Your task to perform on an android device: Show me the alarms in the clock app Image 0: 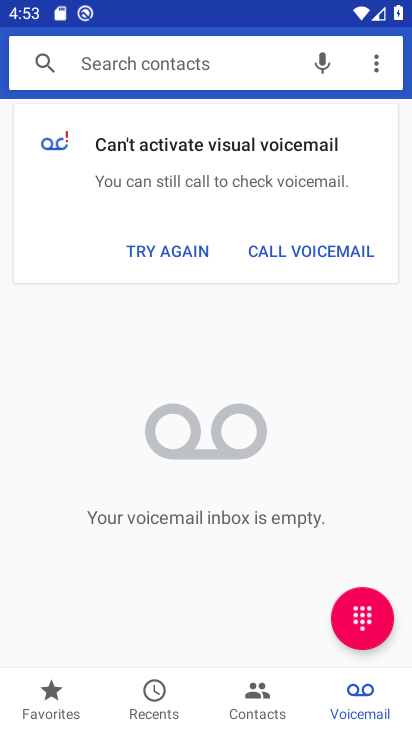
Step 0: press home button
Your task to perform on an android device: Show me the alarms in the clock app Image 1: 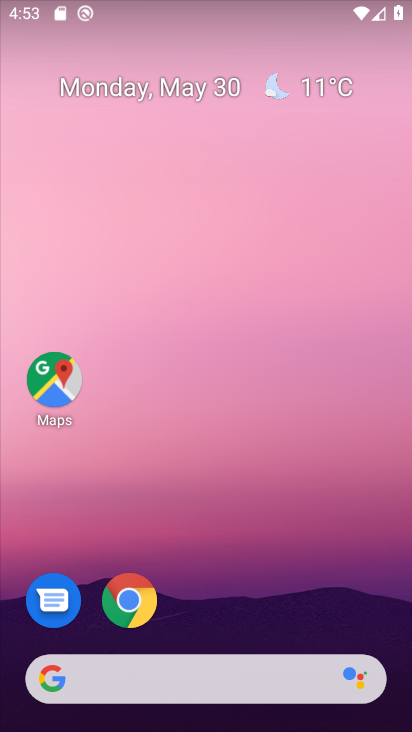
Step 1: drag from (282, 571) to (409, 259)
Your task to perform on an android device: Show me the alarms in the clock app Image 2: 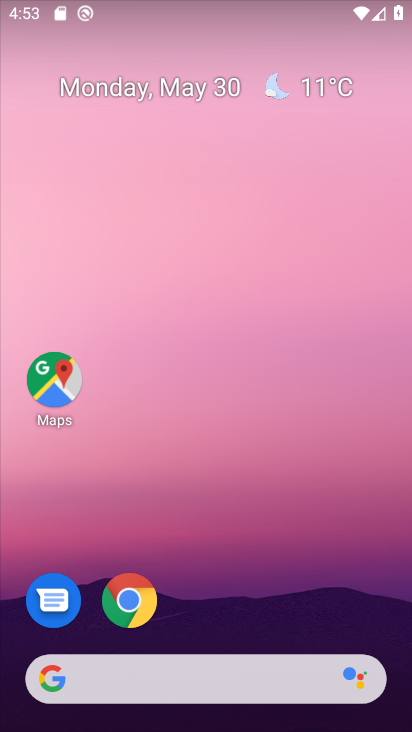
Step 2: drag from (219, 581) to (407, 1)
Your task to perform on an android device: Show me the alarms in the clock app Image 3: 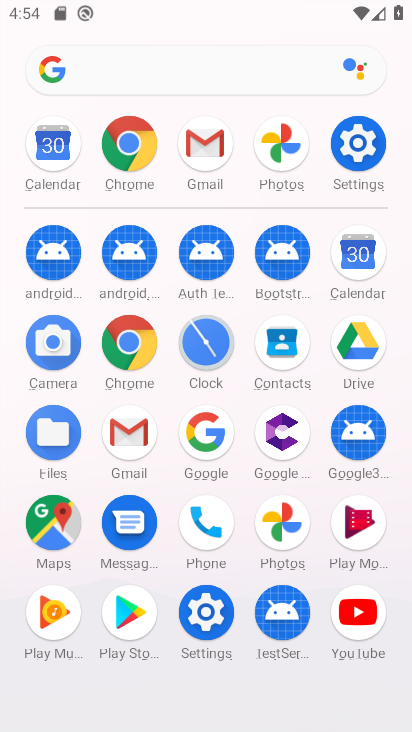
Step 3: click (212, 348)
Your task to perform on an android device: Show me the alarms in the clock app Image 4: 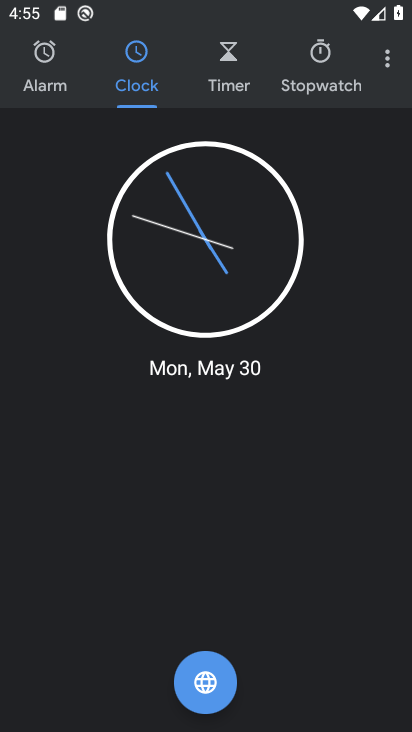
Step 4: click (392, 56)
Your task to perform on an android device: Show me the alarms in the clock app Image 5: 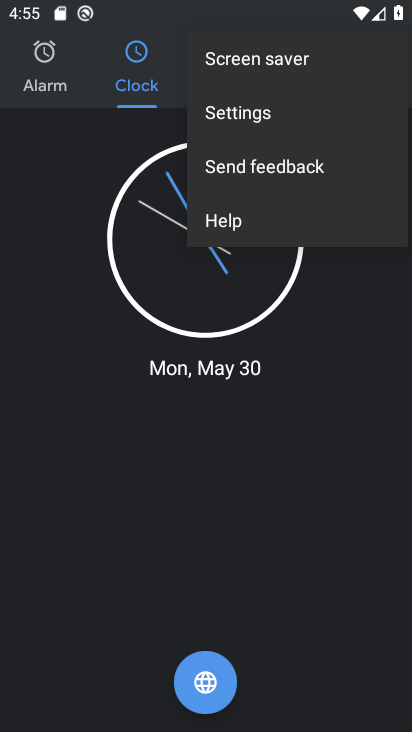
Step 5: click (49, 96)
Your task to perform on an android device: Show me the alarms in the clock app Image 6: 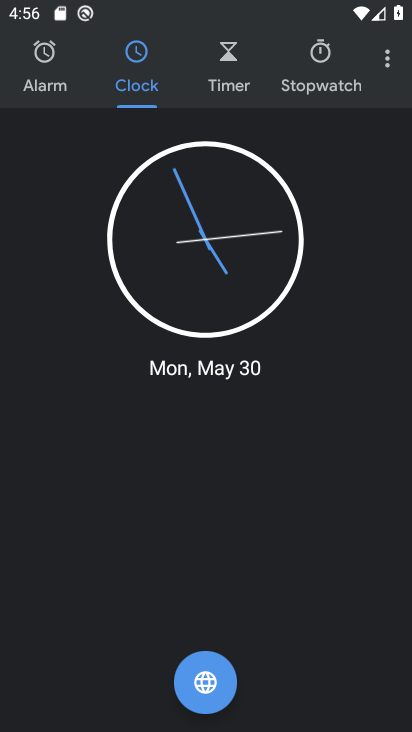
Step 6: click (43, 72)
Your task to perform on an android device: Show me the alarms in the clock app Image 7: 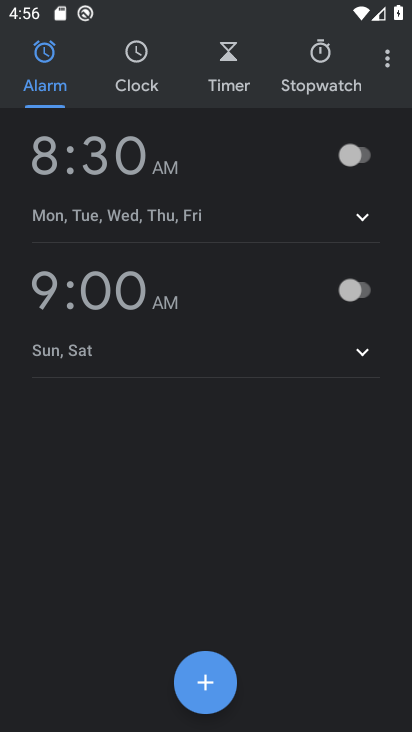
Step 7: click (127, 180)
Your task to perform on an android device: Show me the alarms in the clock app Image 8: 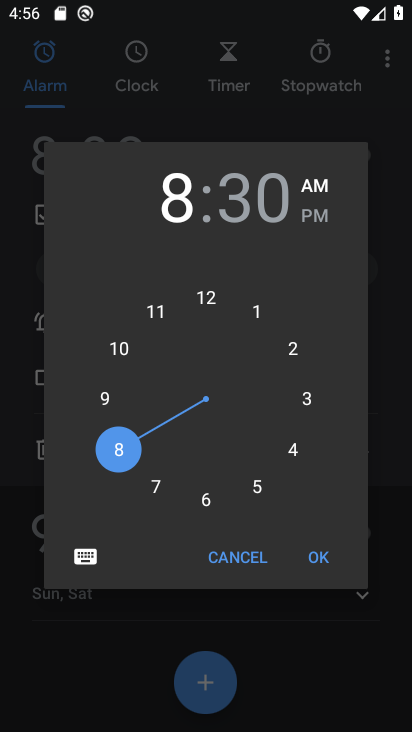
Step 8: task complete